Your task to perform on an android device: change the clock display to digital Image 0: 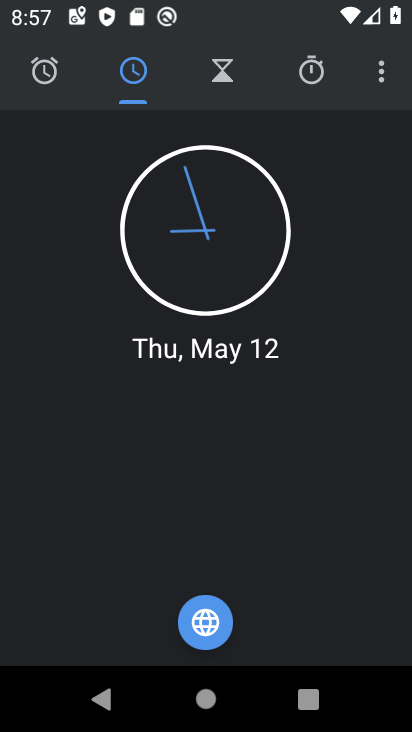
Step 0: press home button
Your task to perform on an android device: change the clock display to digital Image 1: 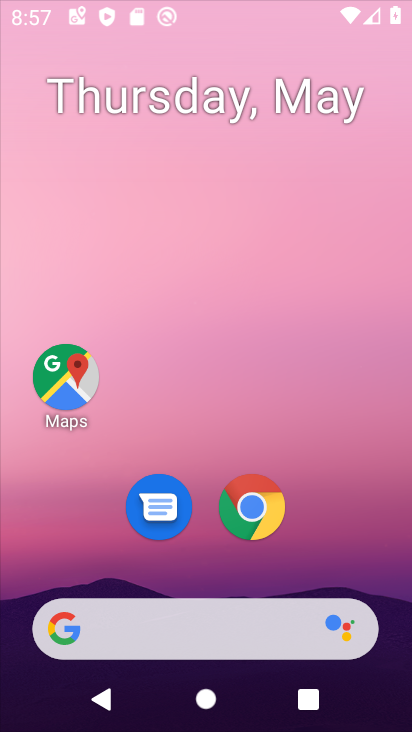
Step 1: drag from (271, 669) to (260, 352)
Your task to perform on an android device: change the clock display to digital Image 2: 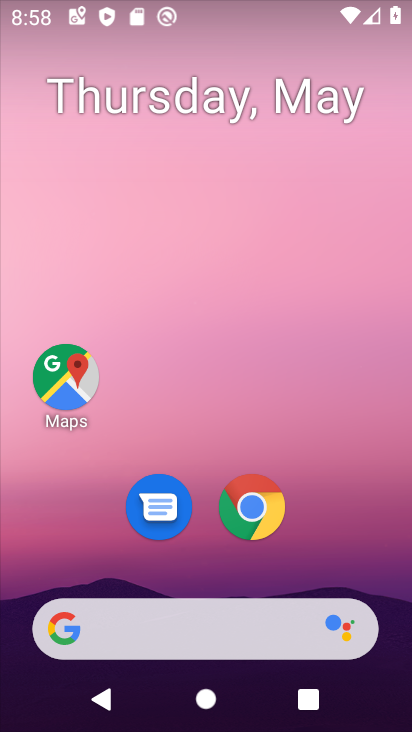
Step 2: drag from (244, 668) to (263, 177)
Your task to perform on an android device: change the clock display to digital Image 3: 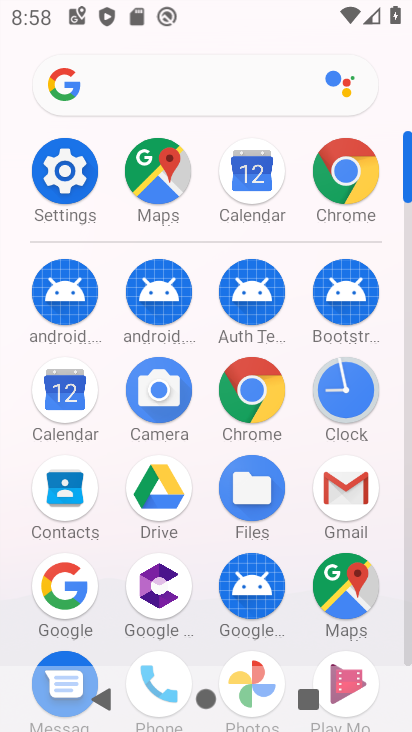
Step 3: click (339, 391)
Your task to perform on an android device: change the clock display to digital Image 4: 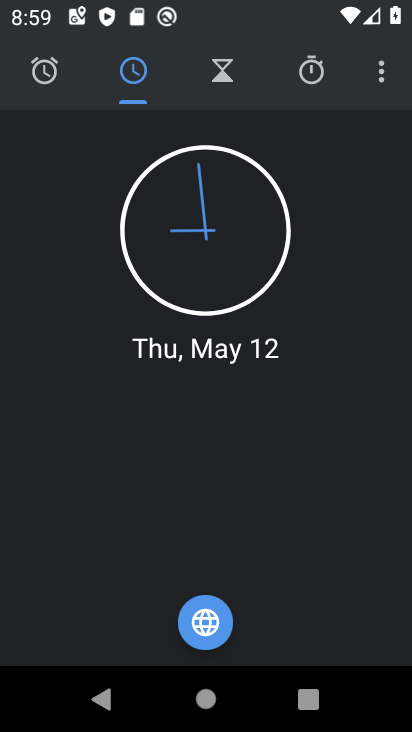
Step 4: click (371, 73)
Your task to perform on an android device: change the clock display to digital Image 5: 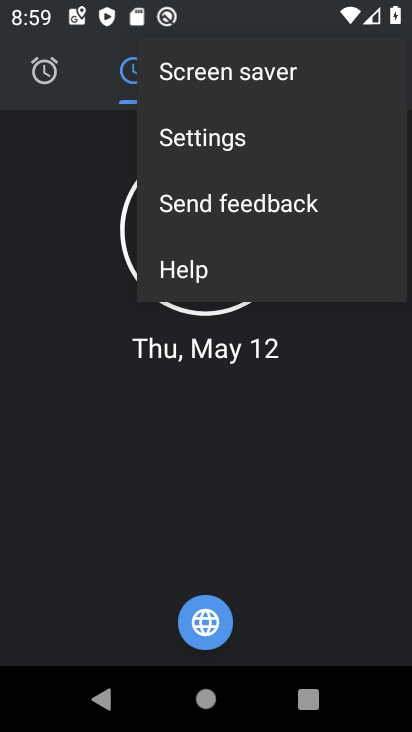
Step 5: click (191, 147)
Your task to perform on an android device: change the clock display to digital Image 6: 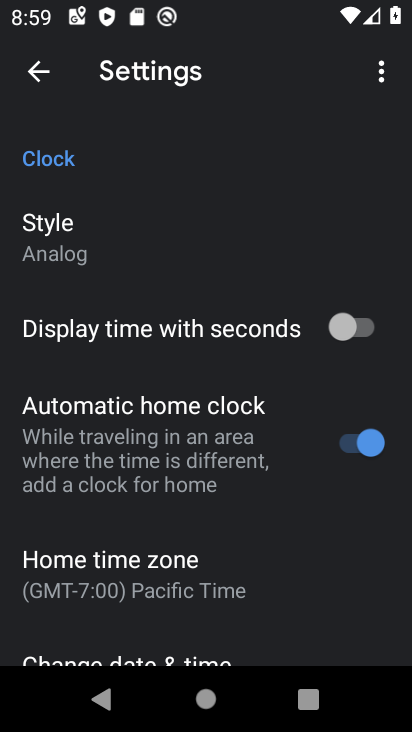
Step 6: click (98, 242)
Your task to perform on an android device: change the clock display to digital Image 7: 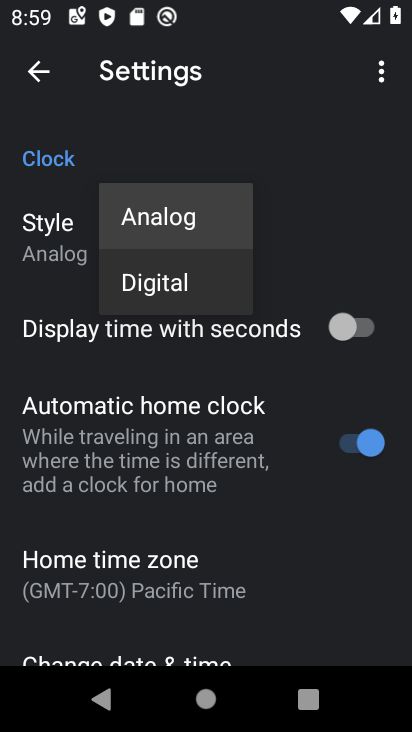
Step 7: click (122, 286)
Your task to perform on an android device: change the clock display to digital Image 8: 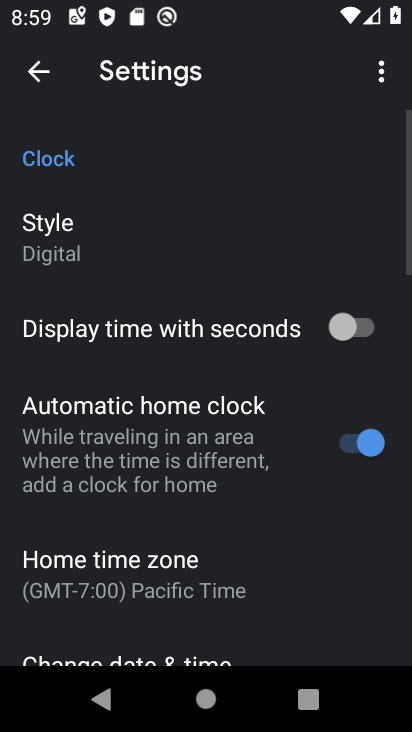
Step 8: task complete